Your task to perform on an android device: turn vacation reply on in the gmail app Image 0: 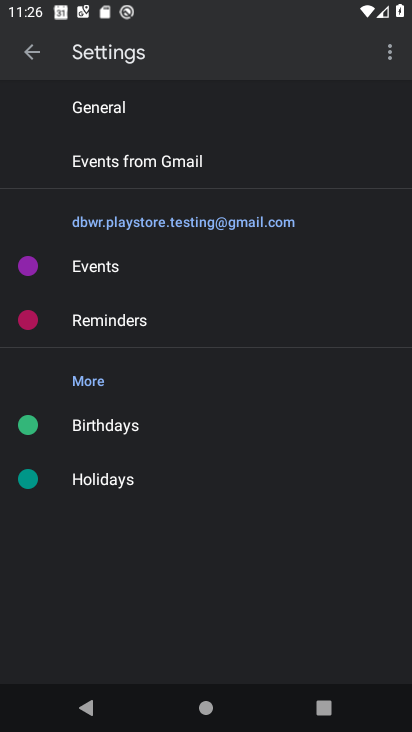
Step 0: press home button
Your task to perform on an android device: turn vacation reply on in the gmail app Image 1: 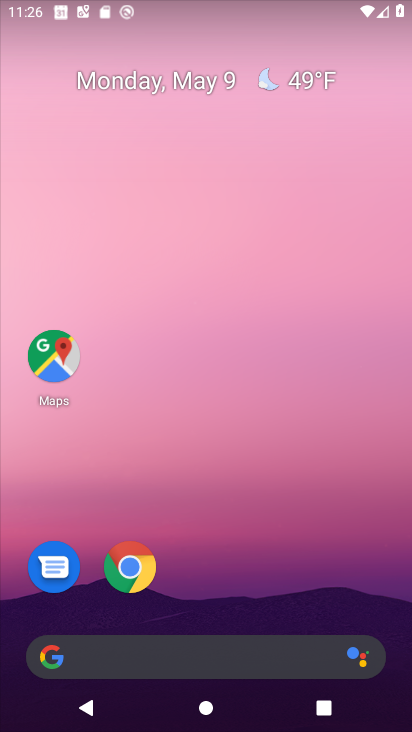
Step 1: drag from (180, 632) to (231, 276)
Your task to perform on an android device: turn vacation reply on in the gmail app Image 2: 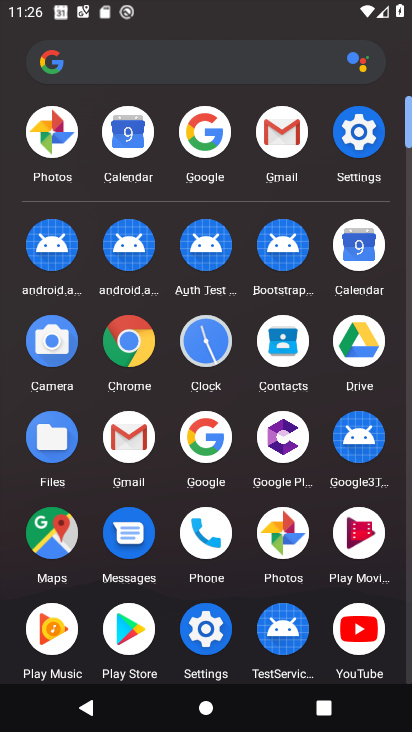
Step 2: click (136, 437)
Your task to perform on an android device: turn vacation reply on in the gmail app Image 3: 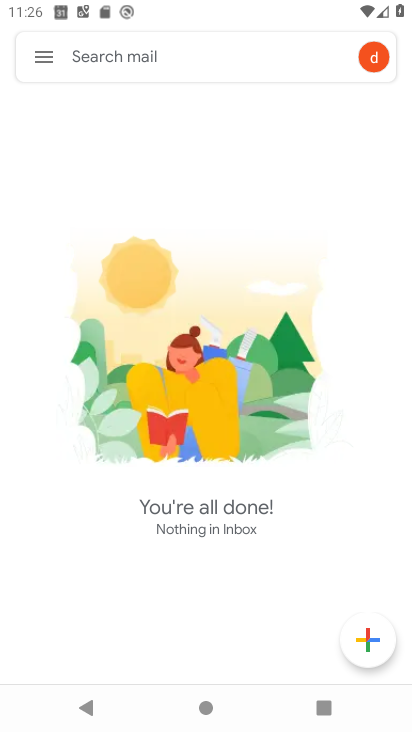
Step 3: click (34, 58)
Your task to perform on an android device: turn vacation reply on in the gmail app Image 4: 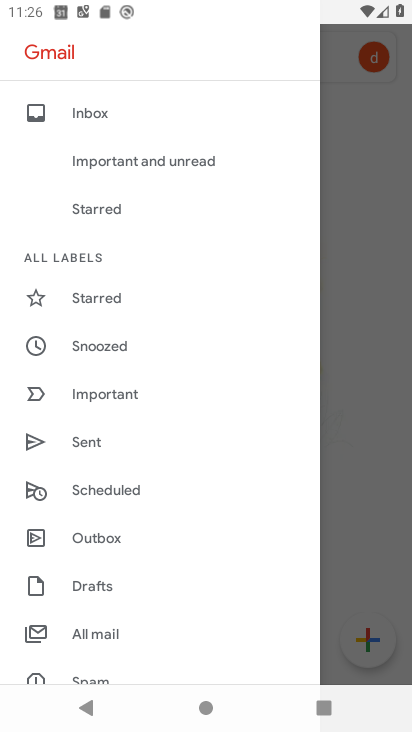
Step 4: drag from (109, 668) to (110, 398)
Your task to perform on an android device: turn vacation reply on in the gmail app Image 5: 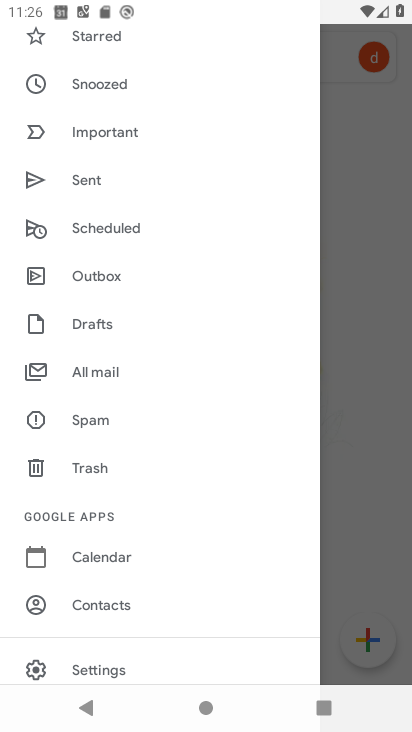
Step 5: click (79, 674)
Your task to perform on an android device: turn vacation reply on in the gmail app Image 6: 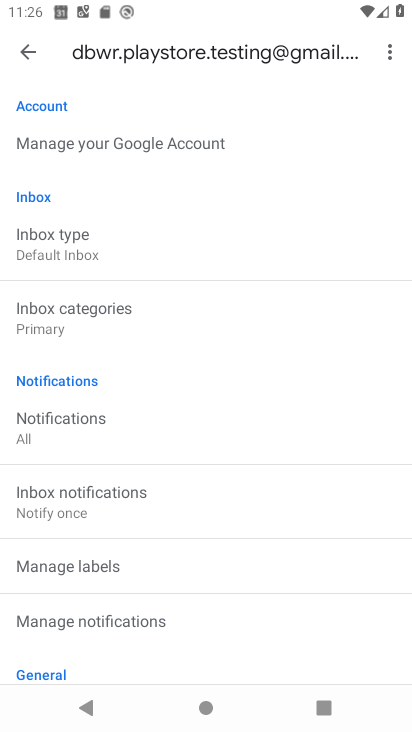
Step 6: drag from (129, 638) to (166, 325)
Your task to perform on an android device: turn vacation reply on in the gmail app Image 7: 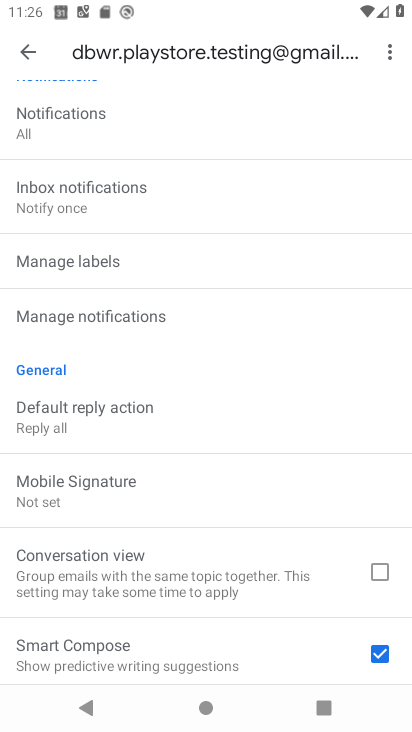
Step 7: drag from (108, 646) to (141, 303)
Your task to perform on an android device: turn vacation reply on in the gmail app Image 8: 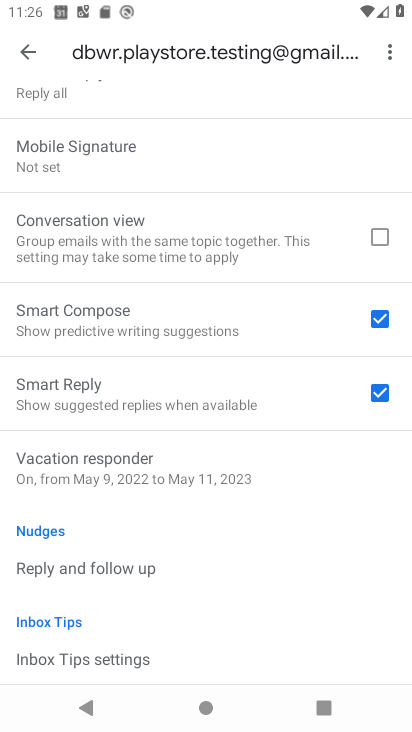
Step 8: click (114, 478)
Your task to perform on an android device: turn vacation reply on in the gmail app Image 9: 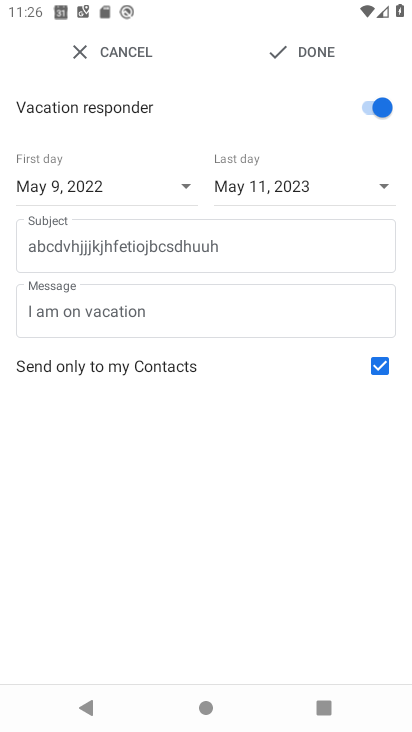
Step 9: click (313, 53)
Your task to perform on an android device: turn vacation reply on in the gmail app Image 10: 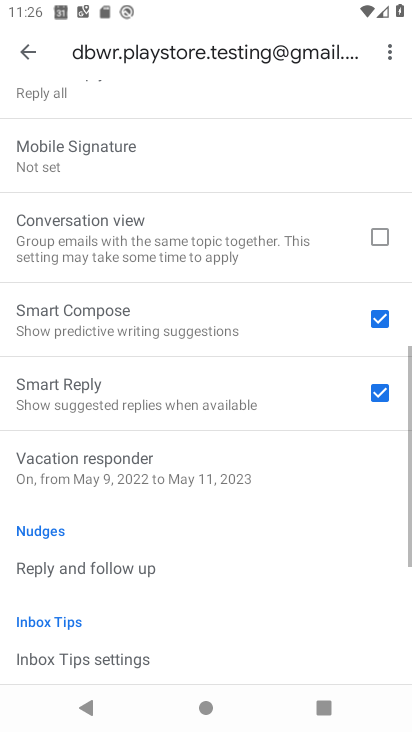
Step 10: task complete